Your task to perform on an android device: turn off picture-in-picture Image 0: 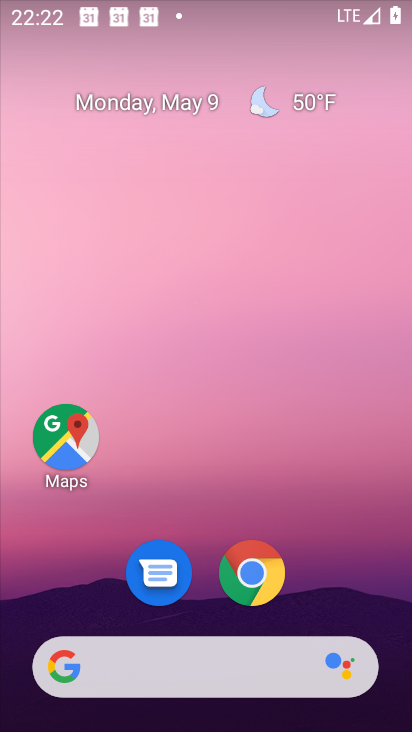
Step 0: click (250, 574)
Your task to perform on an android device: turn off picture-in-picture Image 1: 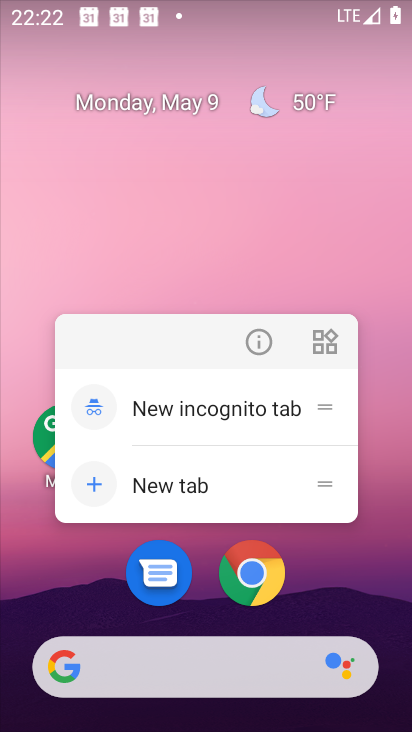
Step 1: click (258, 349)
Your task to perform on an android device: turn off picture-in-picture Image 2: 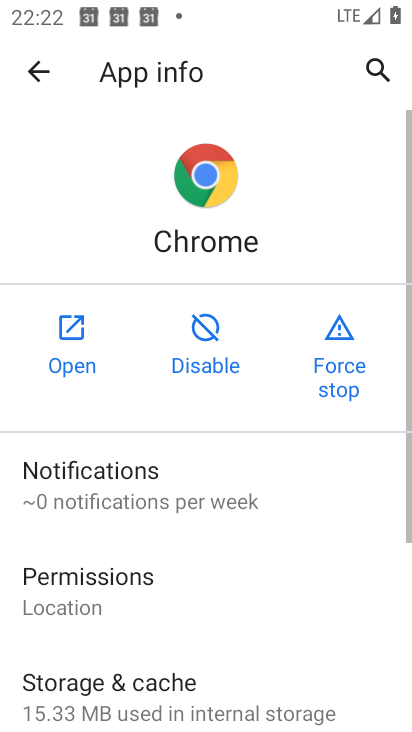
Step 2: drag from (240, 673) to (109, 77)
Your task to perform on an android device: turn off picture-in-picture Image 3: 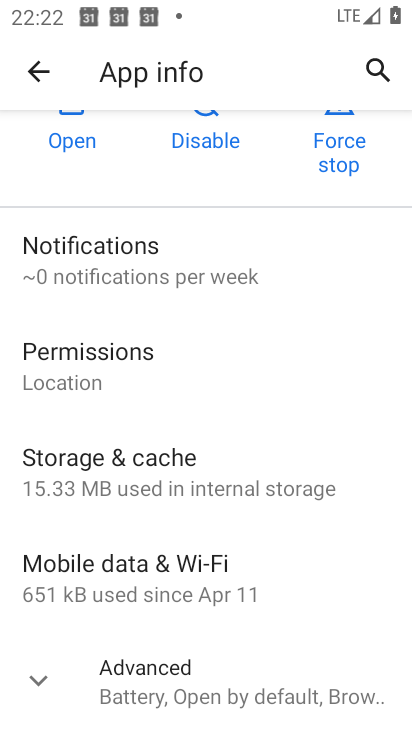
Step 3: click (139, 673)
Your task to perform on an android device: turn off picture-in-picture Image 4: 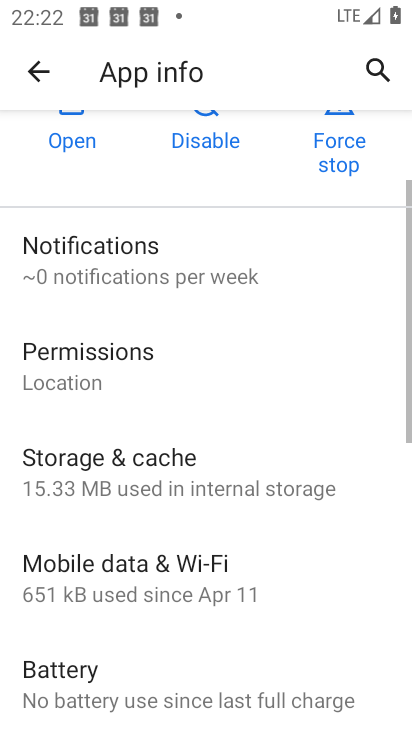
Step 4: drag from (270, 645) to (246, 76)
Your task to perform on an android device: turn off picture-in-picture Image 5: 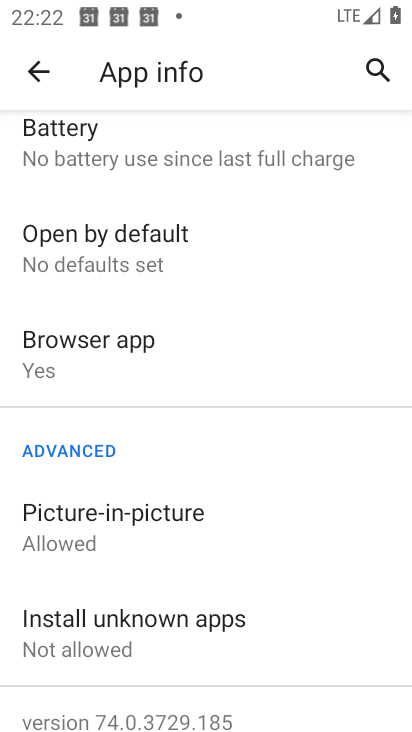
Step 5: click (140, 531)
Your task to perform on an android device: turn off picture-in-picture Image 6: 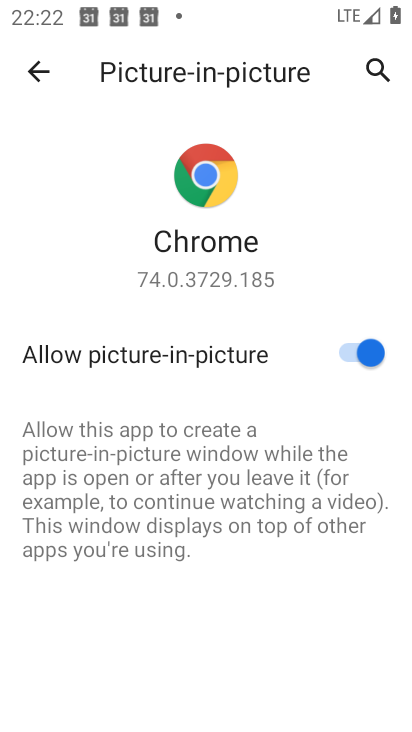
Step 6: click (362, 357)
Your task to perform on an android device: turn off picture-in-picture Image 7: 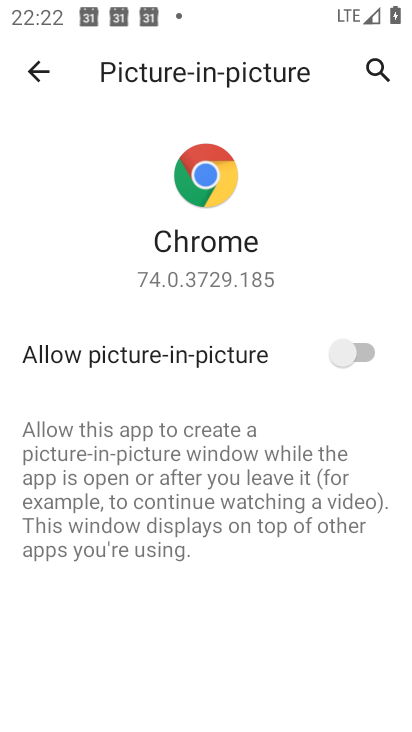
Step 7: task complete